Your task to perform on an android device: add a contact in the contacts app Image 0: 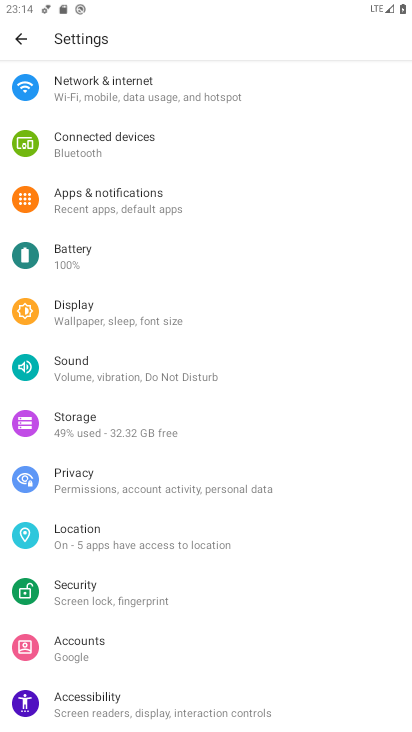
Step 0: press home button
Your task to perform on an android device: add a contact in the contacts app Image 1: 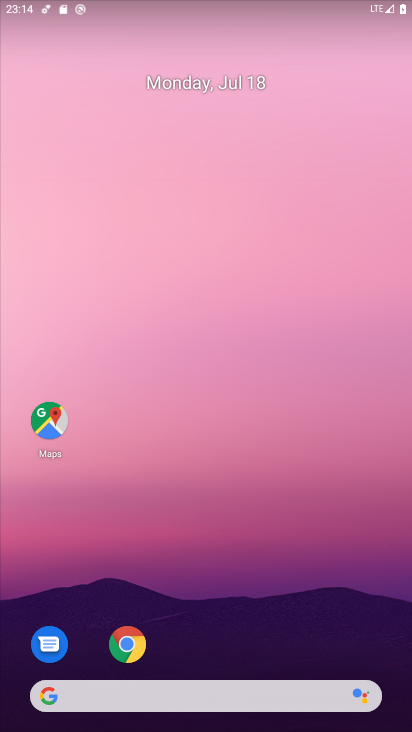
Step 1: drag from (336, 610) to (327, 80)
Your task to perform on an android device: add a contact in the contacts app Image 2: 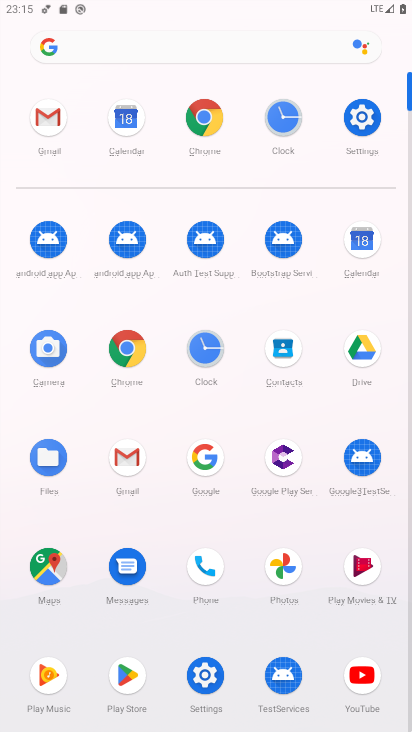
Step 2: click (286, 354)
Your task to perform on an android device: add a contact in the contacts app Image 3: 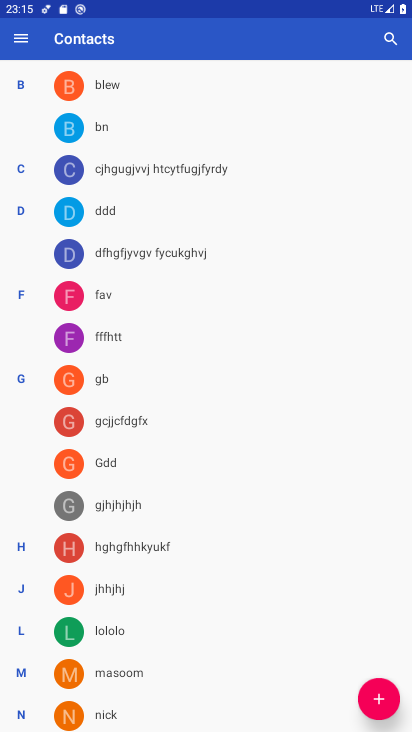
Step 3: click (386, 707)
Your task to perform on an android device: add a contact in the contacts app Image 4: 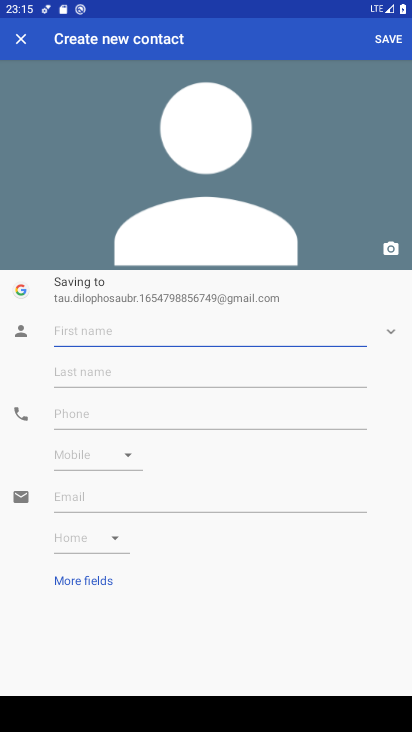
Step 4: type "lololo"
Your task to perform on an android device: add a contact in the contacts app Image 5: 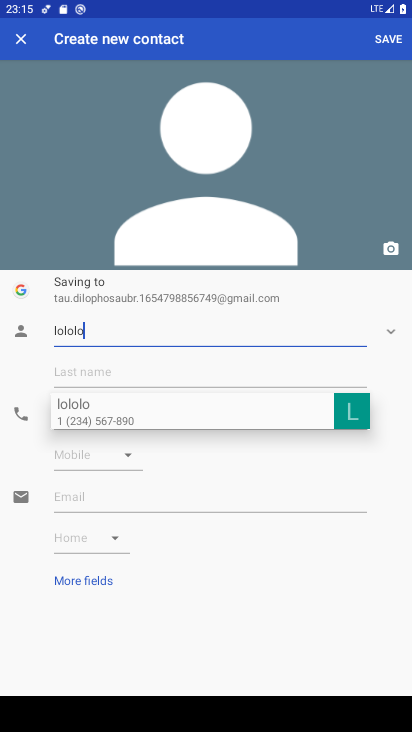
Step 5: click (224, 446)
Your task to perform on an android device: add a contact in the contacts app Image 6: 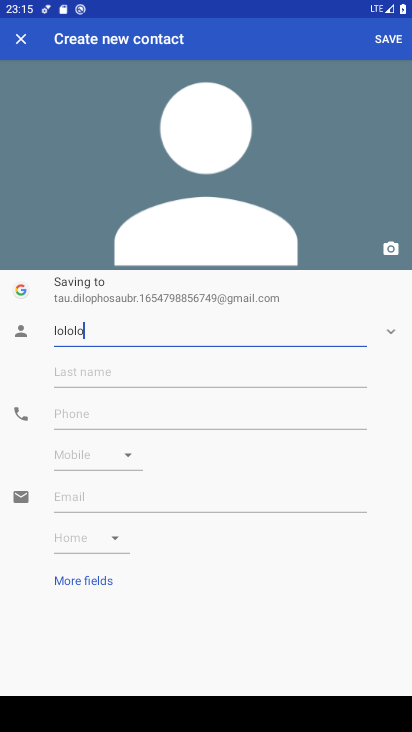
Step 6: click (239, 414)
Your task to perform on an android device: add a contact in the contacts app Image 7: 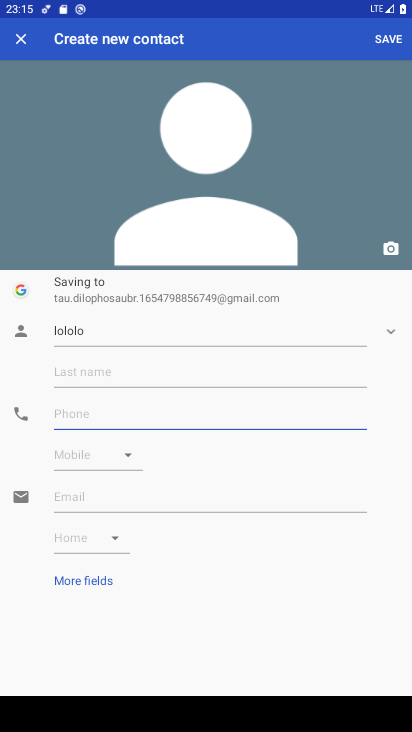
Step 7: type "1234567890"
Your task to perform on an android device: add a contact in the contacts app Image 8: 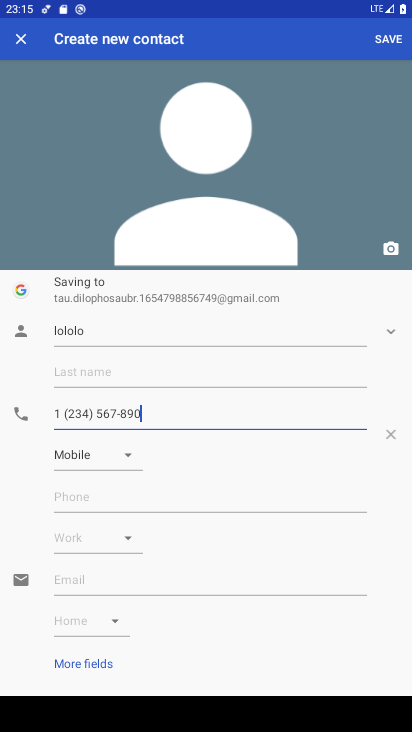
Step 8: click (385, 40)
Your task to perform on an android device: add a contact in the contacts app Image 9: 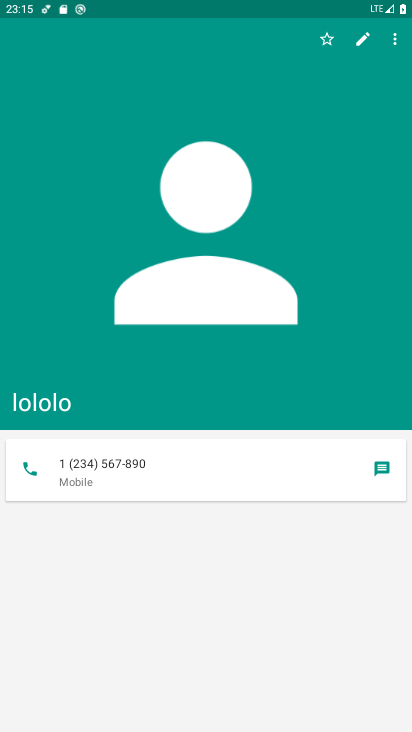
Step 9: task complete